Your task to perform on an android device: change alarm snooze length Image 0: 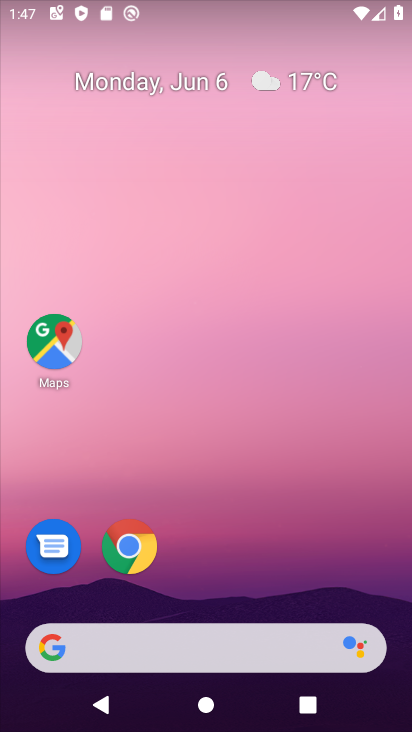
Step 0: drag from (273, 559) to (283, 164)
Your task to perform on an android device: change alarm snooze length Image 1: 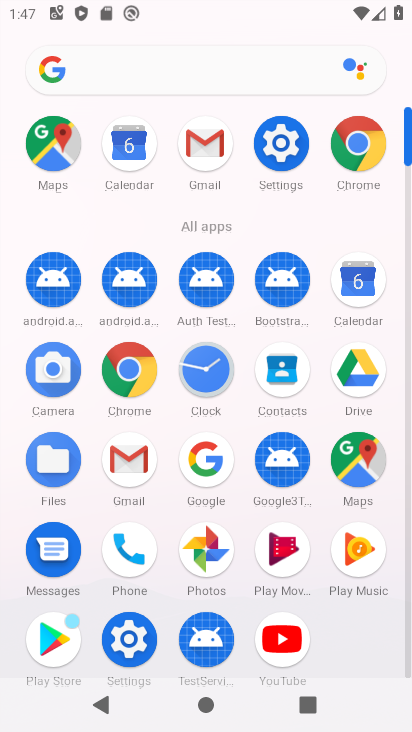
Step 1: click (197, 379)
Your task to perform on an android device: change alarm snooze length Image 2: 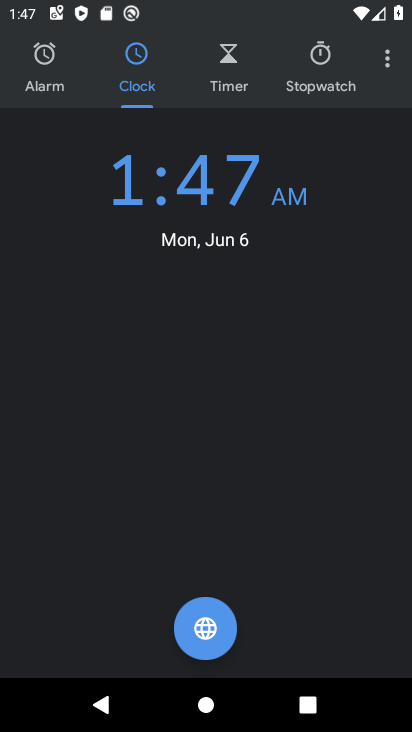
Step 2: click (394, 59)
Your task to perform on an android device: change alarm snooze length Image 3: 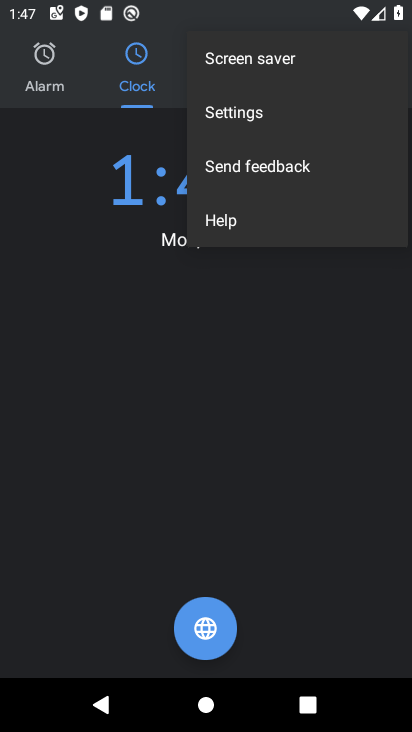
Step 3: click (247, 117)
Your task to perform on an android device: change alarm snooze length Image 4: 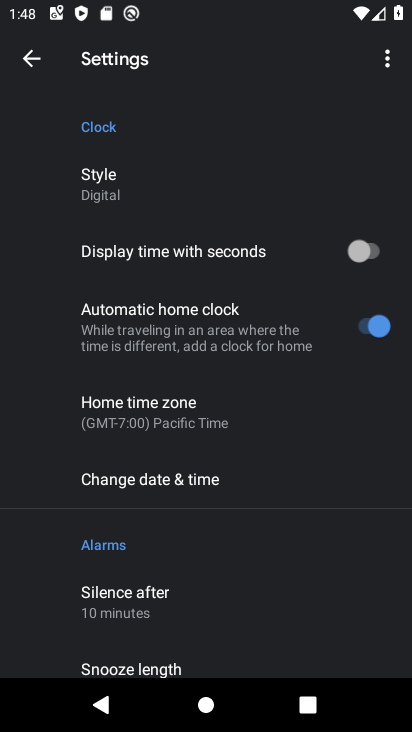
Step 4: drag from (273, 437) to (330, 205)
Your task to perform on an android device: change alarm snooze length Image 5: 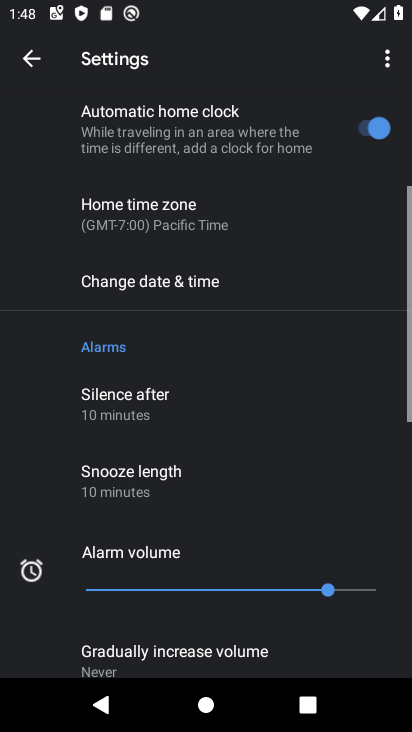
Step 5: click (340, 169)
Your task to perform on an android device: change alarm snooze length Image 6: 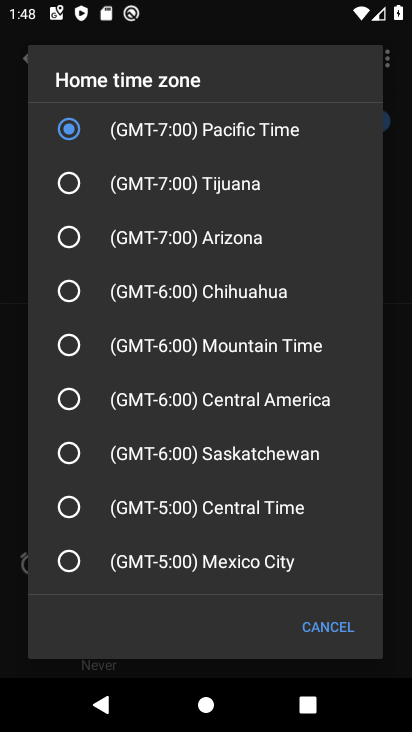
Step 6: click (313, 638)
Your task to perform on an android device: change alarm snooze length Image 7: 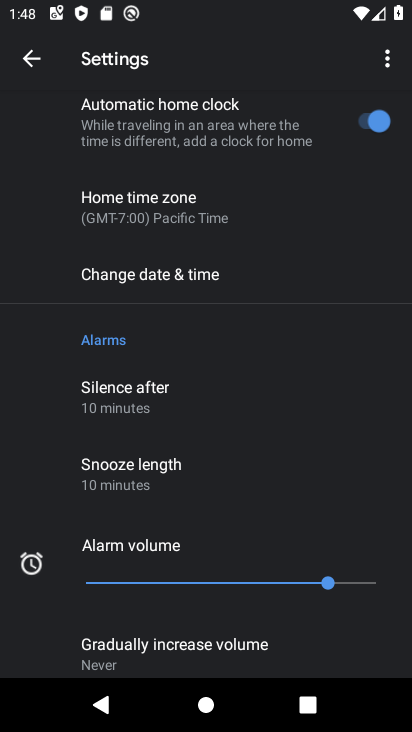
Step 7: click (188, 482)
Your task to perform on an android device: change alarm snooze length Image 8: 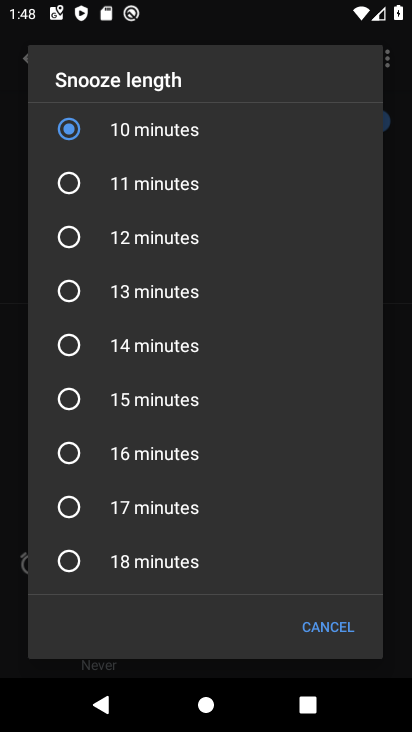
Step 8: click (154, 181)
Your task to perform on an android device: change alarm snooze length Image 9: 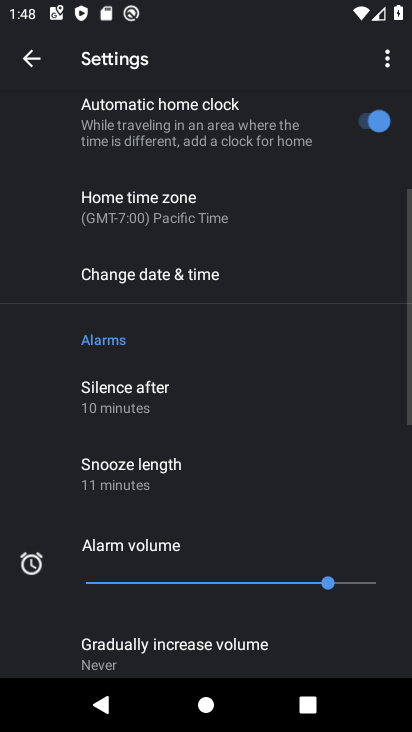
Step 9: task complete